Your task to perform on an android device: set the stopwatch Image 0: 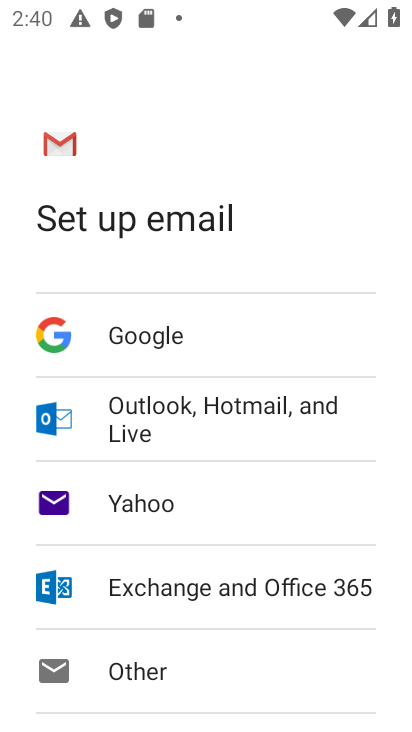
Step 0: press home button
Your task to perform on an android device: set the stopwatch Image 1: 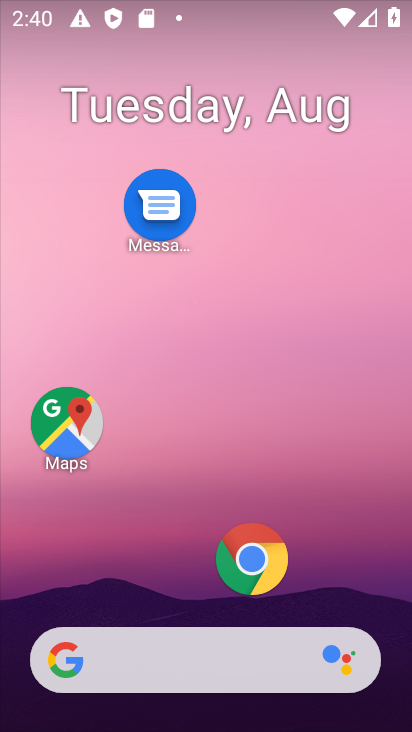
Step 1: drag from (165, 593) to (190, 109)
Your task to perform on an android device: set the stopwatch Image 2: 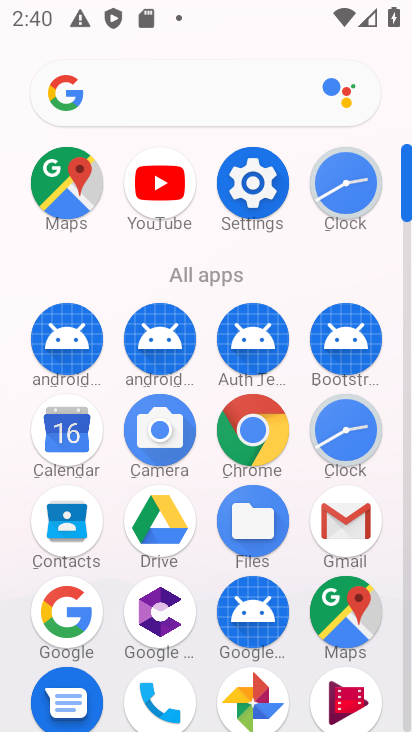
Step 2: click (345, 181)
Your task to perform on an android device: set the stopwatch Image 3: 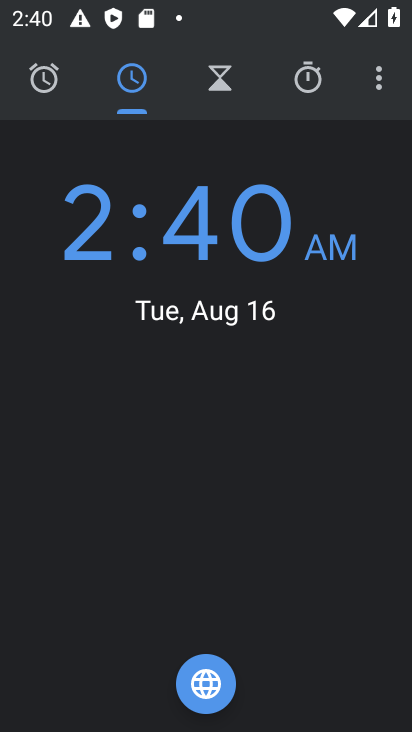
Step 3: click (308, 77)
Your task to perform on an android device: set the stopwatch Image 4: 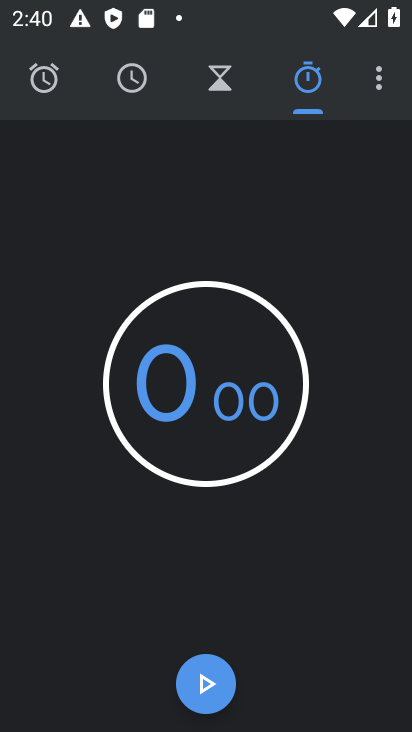
Step 4: task complete